Your task to perform on an android device: change notifications settings Image 0: 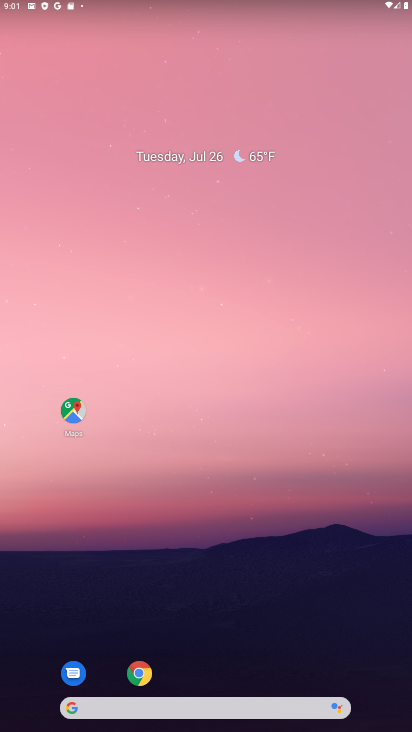
Step 0: drag from (396, 694) to (349, 83)
Your task to perform on an android device: change notifications settings Image 1: 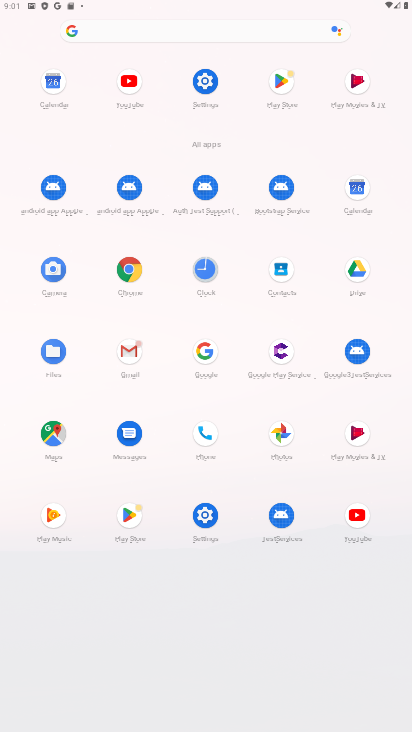
Step 1: click (204, 514)
Your task to perform on an android device: change notifications settings Image 2: 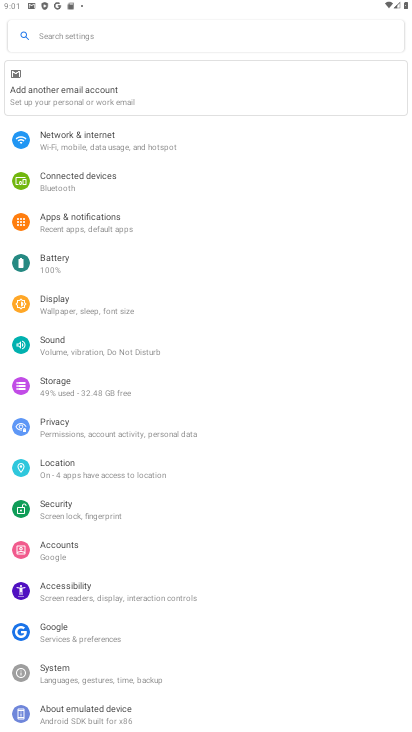
Step 2: click (59, 217)
Your task to perform on an android device: change notifications settings Image 3: 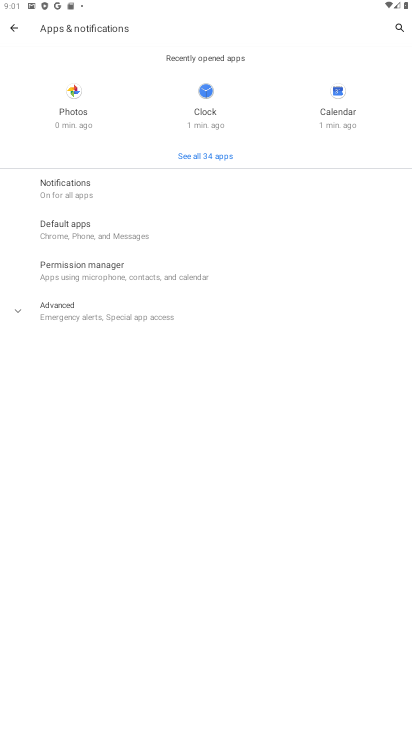
Step 3: click (50, 175)
Your task to perform on an android device: change notifications settings Image 4: 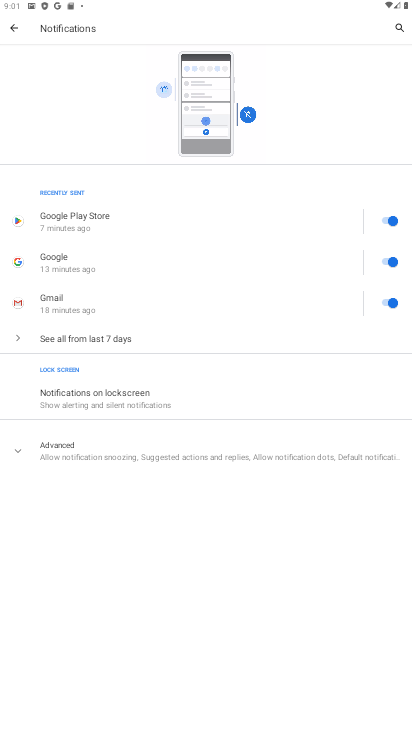
Step 4: click (19, 450)
Your task to perform on an android device: change notifications settings Image 5: 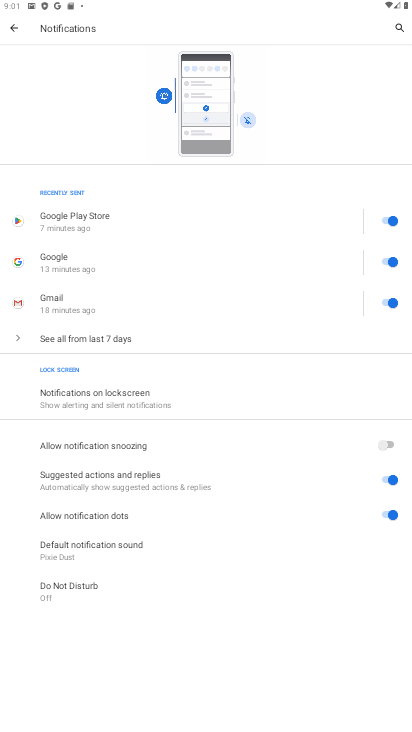
Step 5: click (392, 443)
Your task to perform on an android device: change notifications settings Image 6: 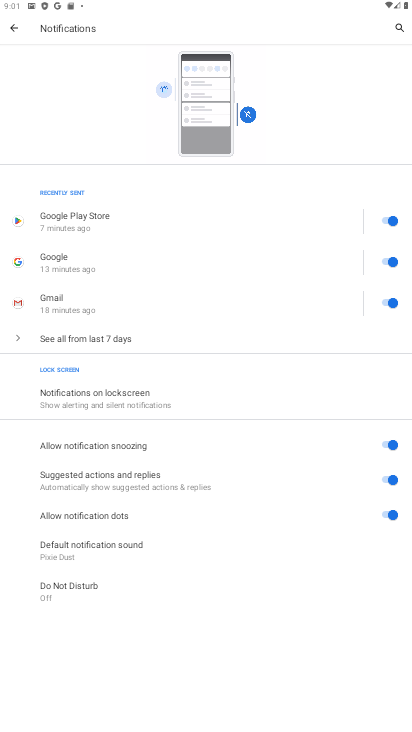
Step 6: click (386, 514)
Your task to perform on an android device: change notifications settings Image 7: 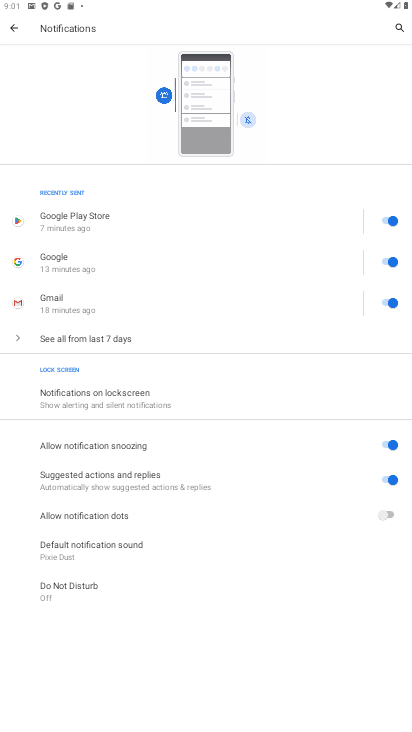
Step 7: task complete